Your task to perform on an android device: Open display settings Image 0: 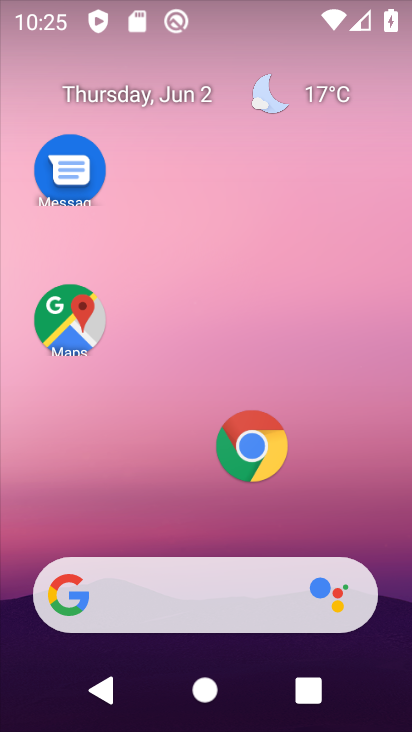
Step 0: press home button
Your task to perform on an android device: Open display settings Image 1: 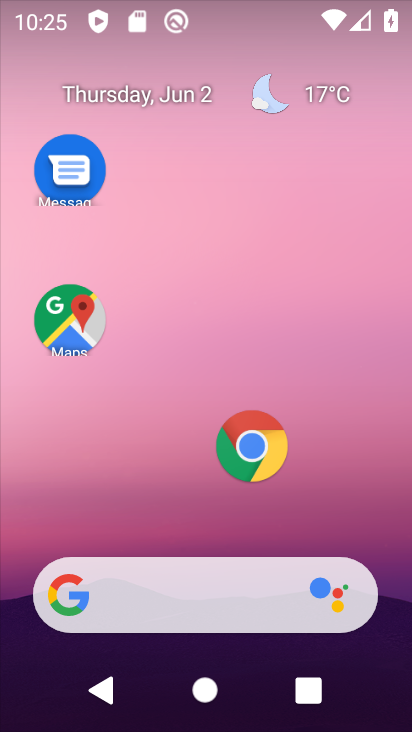
Step 1: drag from (344, 449) to (338, 391)
Your task to perform on an android device: Open display settings Image 2: 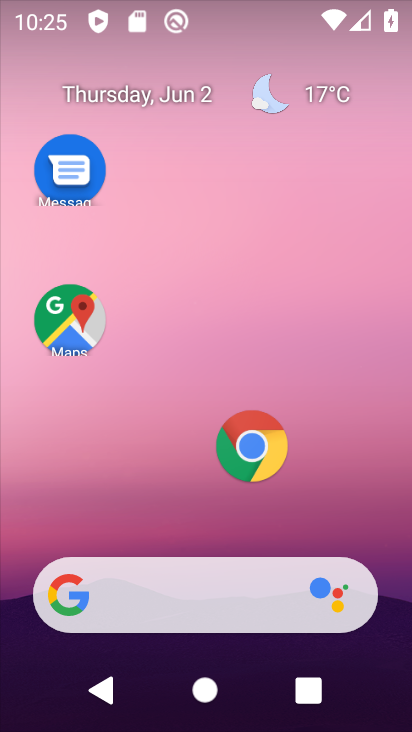
Step 2: click (69, 309)
Your task to perform on an android device: Open display settings Image 3: 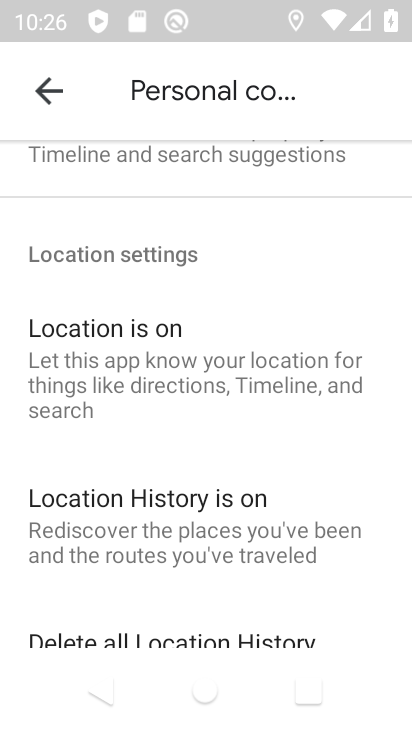
Step 3: press home button
Your task to perform on an android device: Open display settings Image 4: 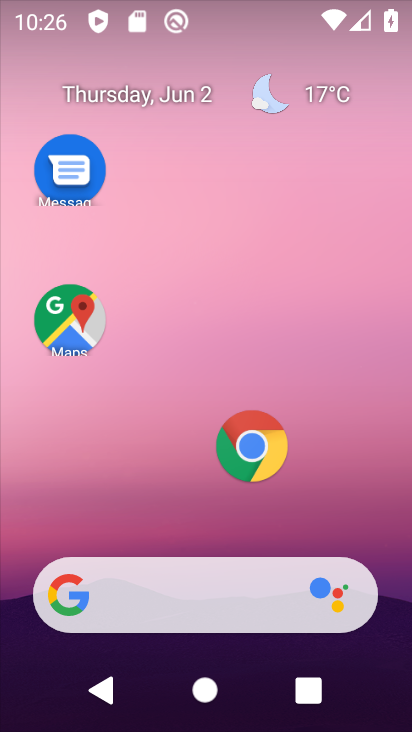
Step 4: drag from (357, 418) to (332, 94)
Your task to perform on an android device: Open display settings Image 5: 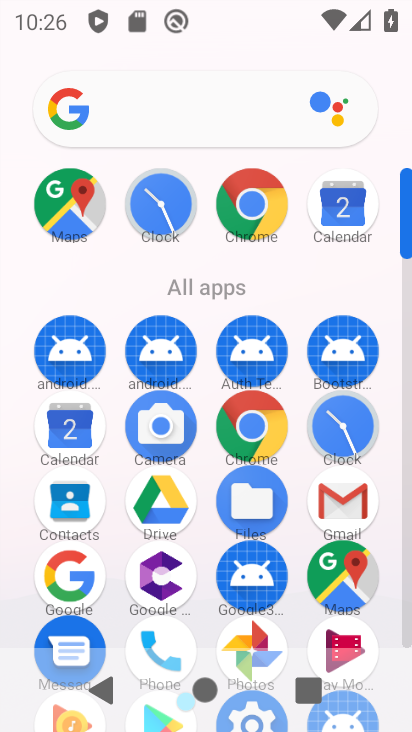
Step 5: drag from (289, 626) to (359, 200)
Your task to perform on an android device: Open display settings Image 6: 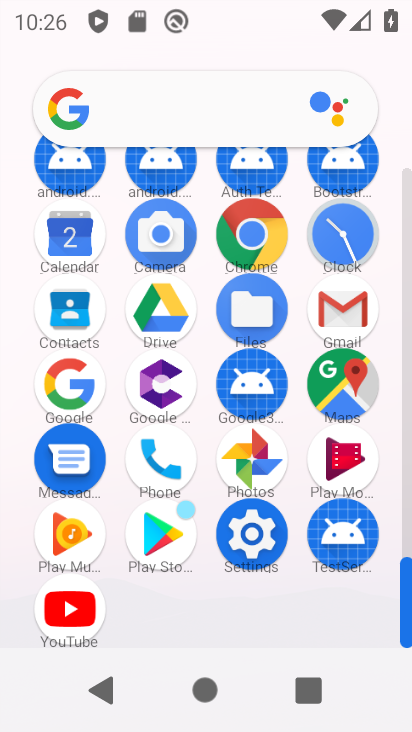
Step 6: click (240, 525)
Your task to perform on an android device: Open display settings Image 7: 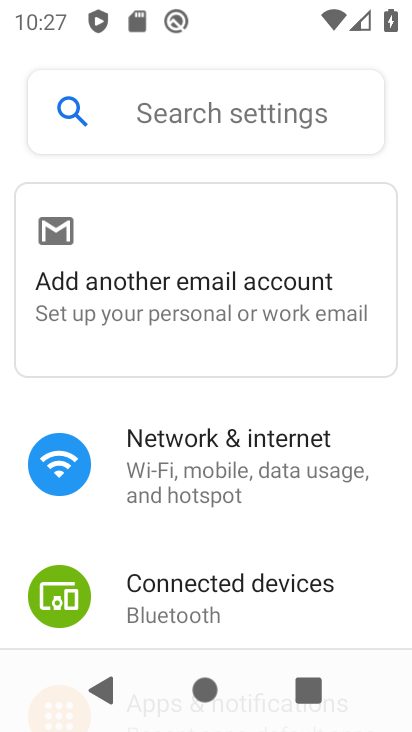
Step 7: drag from (240, 525) to (348, 40)
Your task to perform on an android device: Open display settings Image 8: 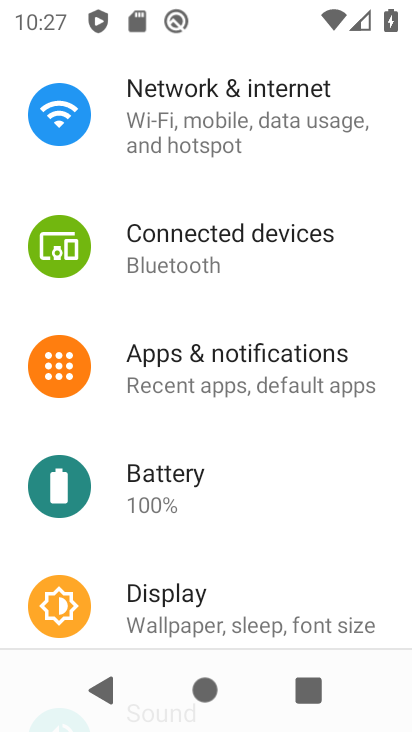
Step 8: click (181, 607)
Your task to perform on an android device: Open display settings Image 9: 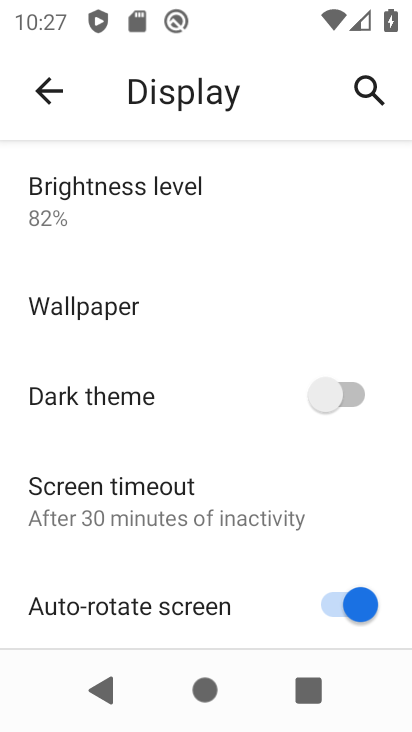
Step 9: task complete